Your task to perform on an android device: change the clock display to analog Image 0: 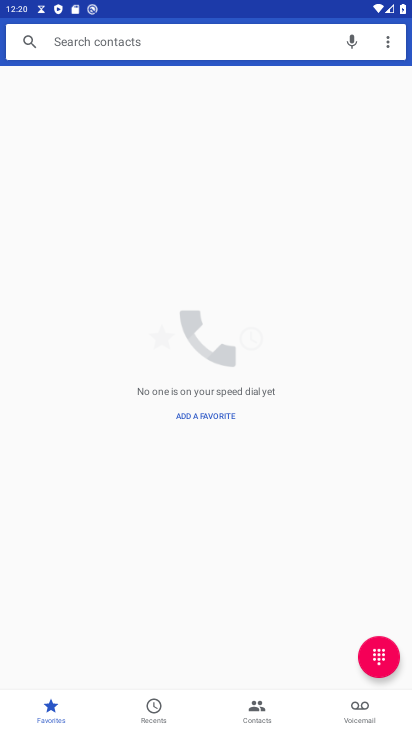
Step 0: press home button
Your task to perform on an android device: change the clock display to analog Image 1: 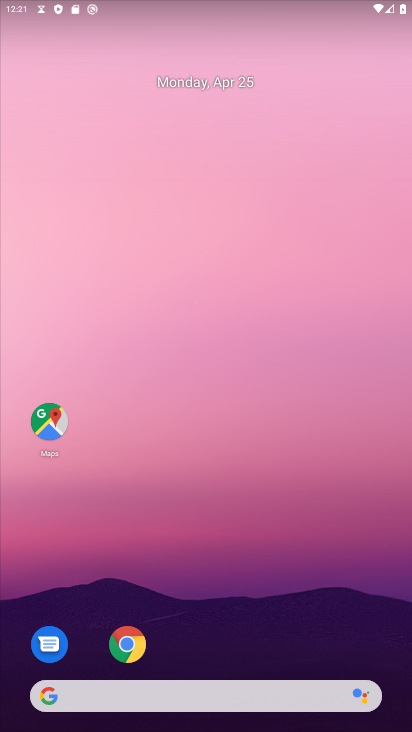
Step 1: drag from (353, 648) to (370, 107)
Your task to perform on an android device: change the clock display to analog Image 2: 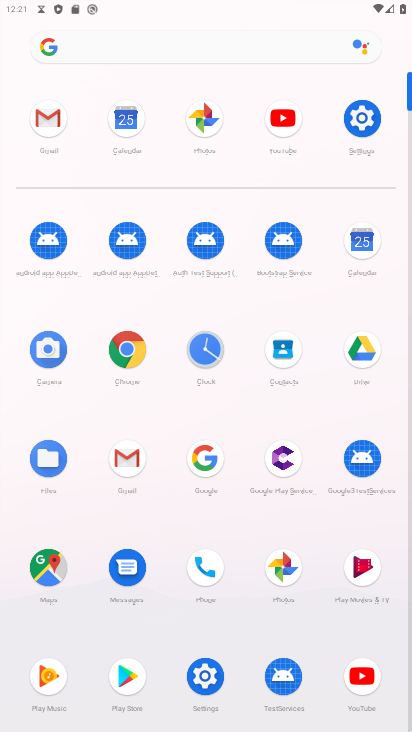
Step 2: click (205, 353)
Your task to perform on an android device: change the clock display to analog Image 3: 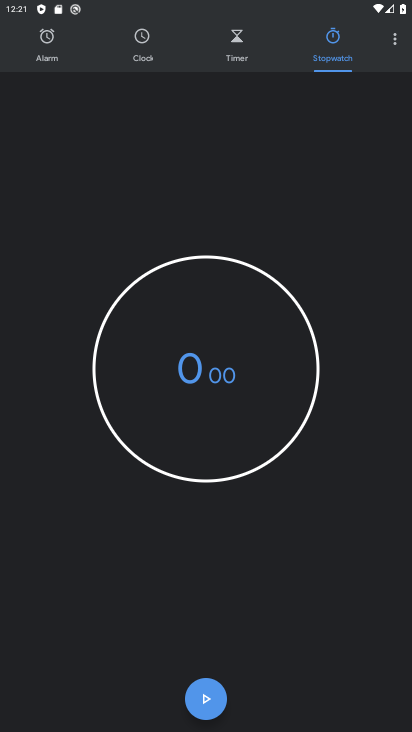
Step 3: click (396, 46)
Your task to perform on an android device: change the clock display to analog Image 4: 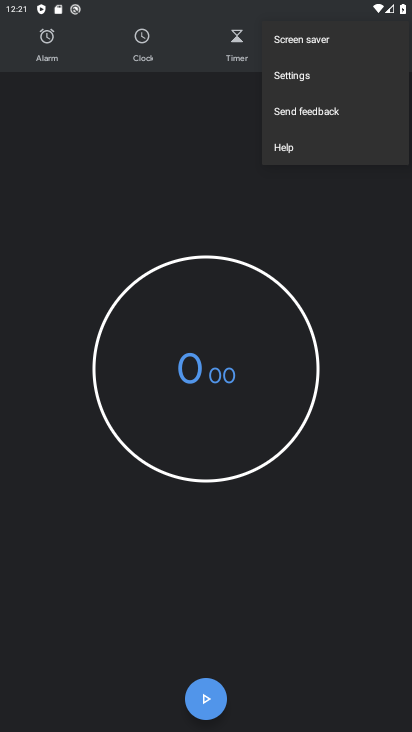
Step 4: click (296, 75)
Your task to perform on an android device: change the clock display to analog Image 5: 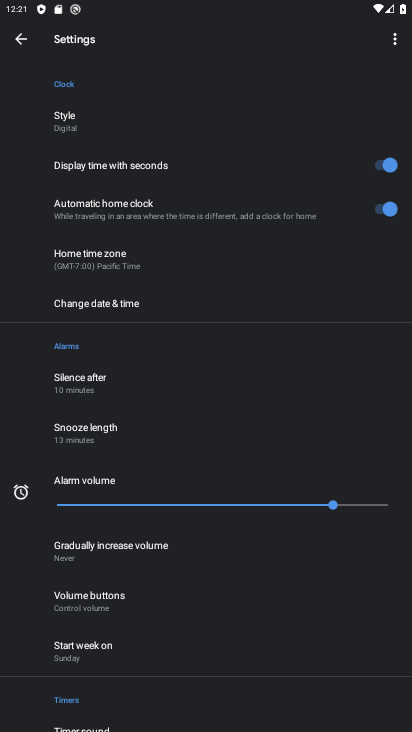
Step 5: click (73, 117)
Your task to perform on an android device: change the clock display to analog Image 6: 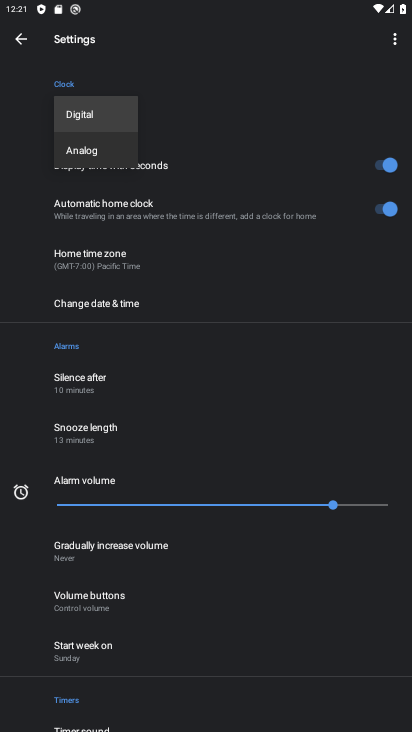
Step 6: click (90, 152)
Your task to perform on an android device: change the clock display to analog Image 7: 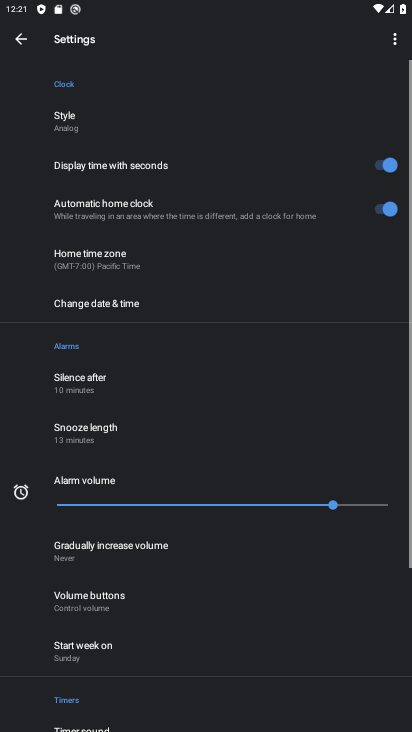
Step 7: task complete